Your task to perform on an android device: Open Reddit.com Image 0: 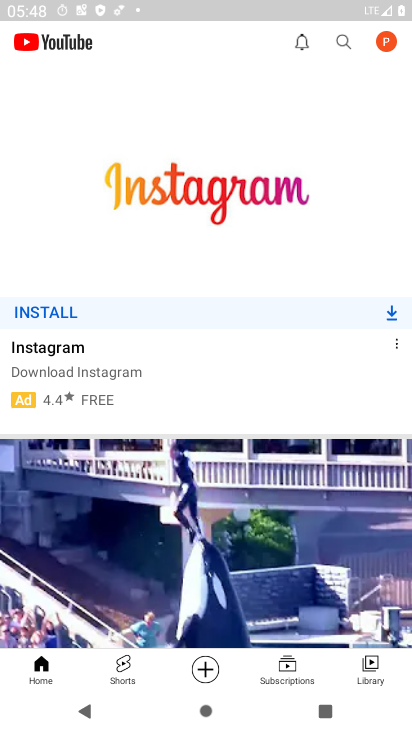
Step 0: drag from (317, 671) to (338, 89)
Your task to perform on an android device: Open Reddit.com Image 1: 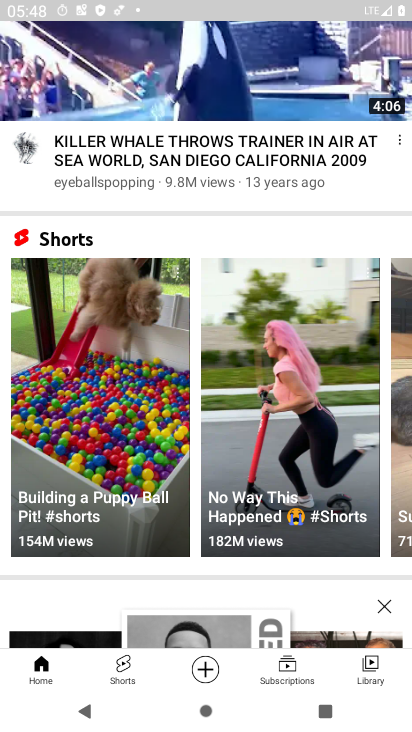
Step 1: press home button
Your task to perform on an android device: Open Reddit.com Image 2: 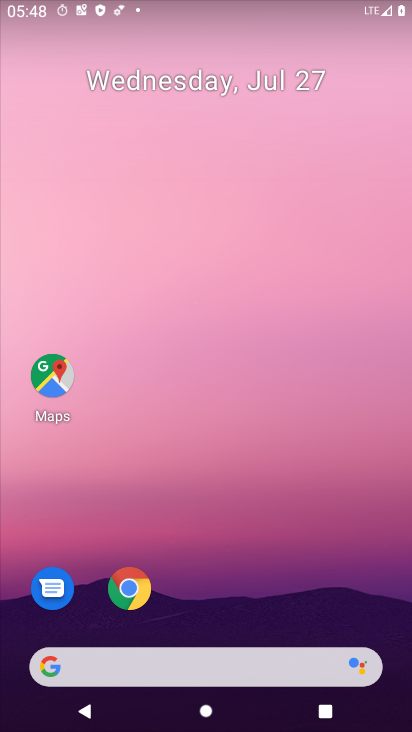
Step 2: drag from (250, 612) to (242, 46)
Your task to perform on an android device: Open Reddit.com Image 3: 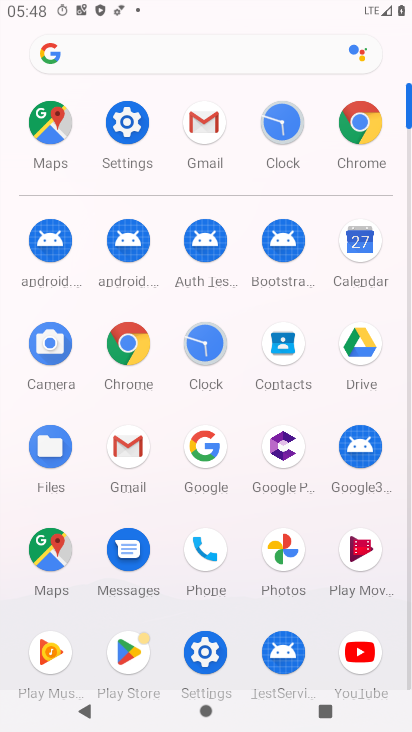
Step 3: click (124, 342)
Your task to perform on an android device: Open Reddit.com Image 4: 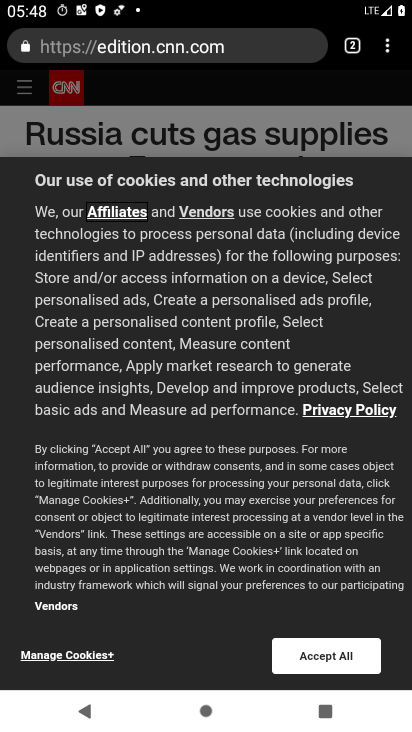
Step 4: click (238, 42)
Your task to perform on an android device: Open Reddit.com Image 5: 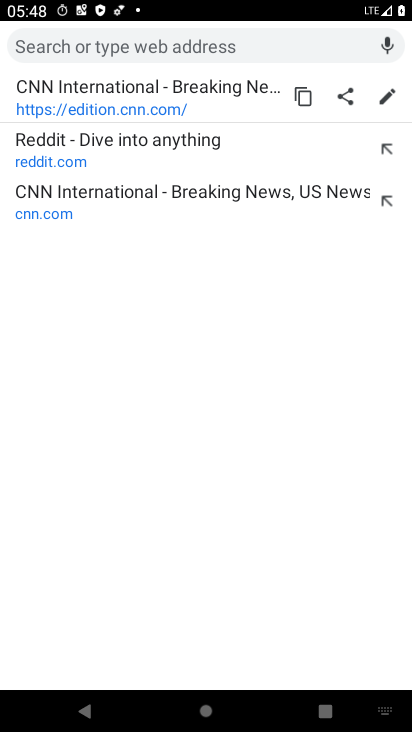
Step 5: click (228, 138)
Your task to perform on an android device: Open Reddit.com Image 6: 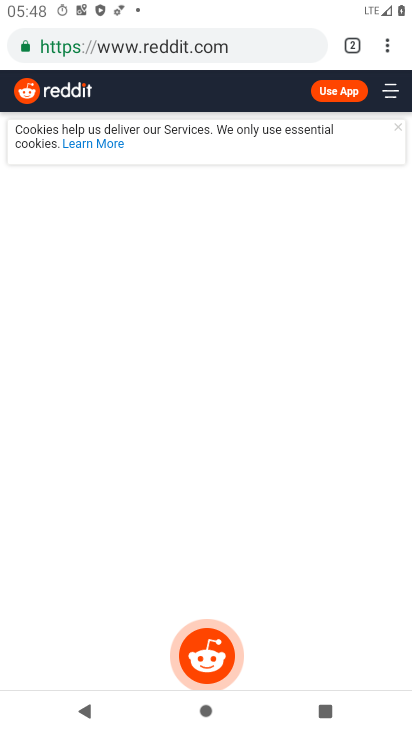
Step 6: task complete